Your task to perform on an android device: turn on javascript in the chrome app Image 0: 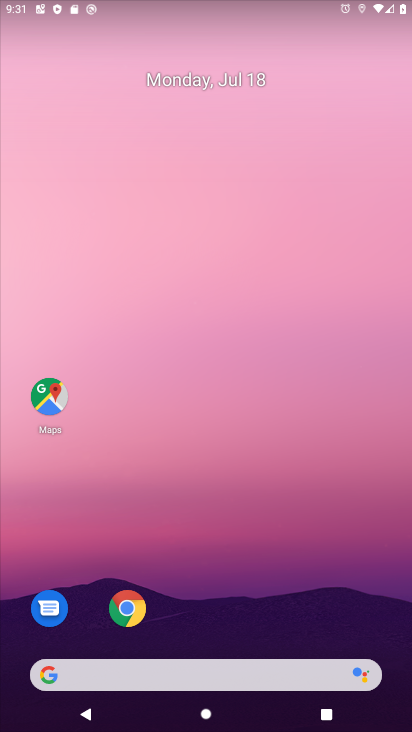
Step 0: click (137, 615)
Your task to perform on an android device: turn on javascript in the chrome app Image 1: 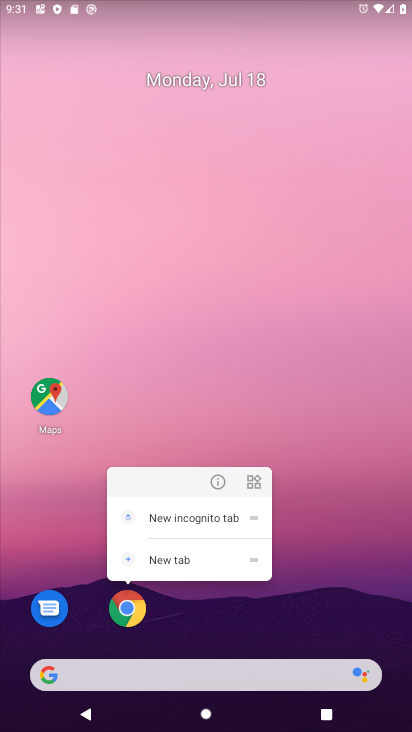
Step 1: click (135, 614)
Your task to perform on an android device: turn on javascript in the chrome app Image 2: 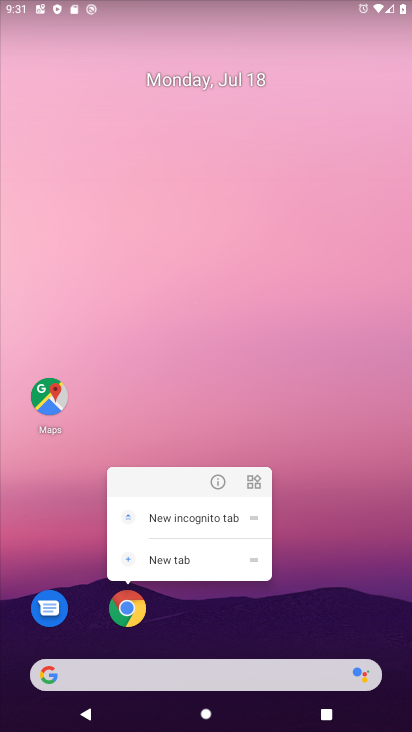
Step 2: click (127, 605)
Your task to perform on an android device: turn on javascript in the chrome app Image 3: 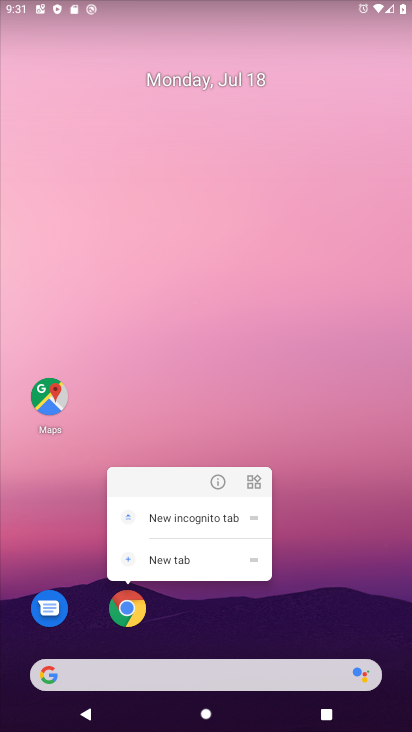
Step 3: task complete